Your task to perform on an android device: turn on the 24-hour format for clock Image 0: 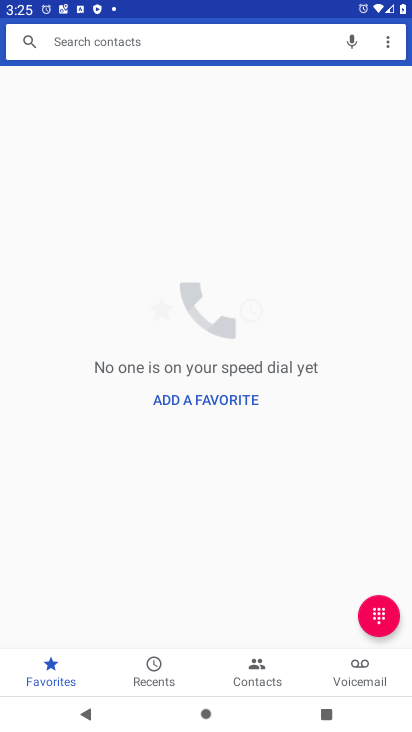
Step 0: press home button
Your task to perform on an android device: turn on the 24-hour format for clock Image 1: 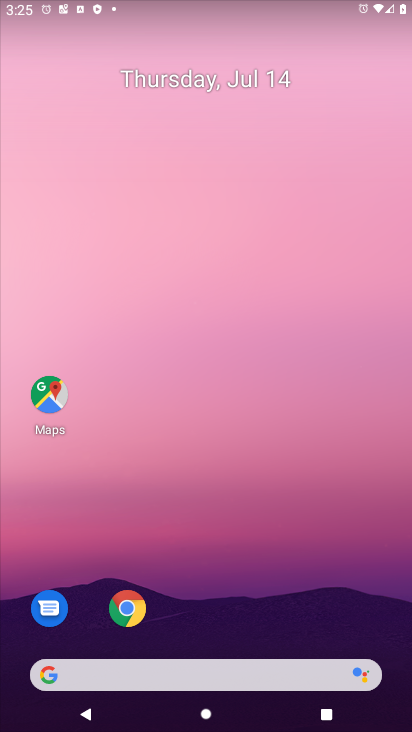
Step 1: click (365, 622)
Your task to perform on an android device: turn on the 24-hour format for clock Image 2: 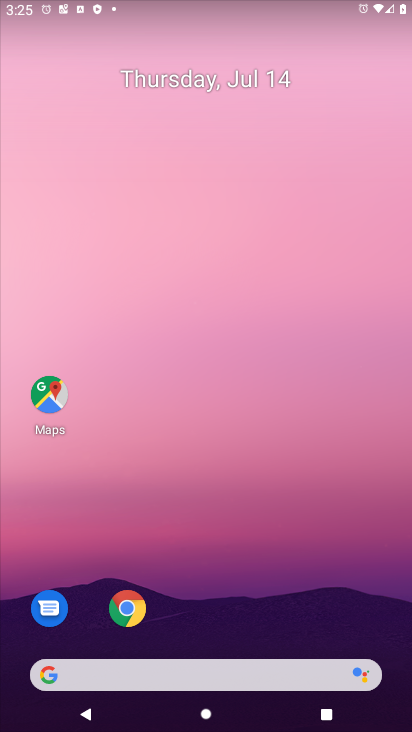
Step 2: drag from (365, 622) to (293, 102)
Your task to perform on an android device: turn on the 24-hour format for clock Image 3: 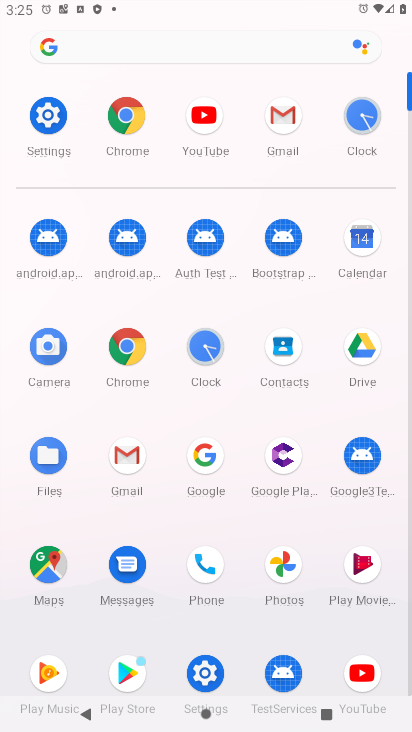
Step 3: click (204, 343)
Your task to perform on an android device: turn on the 24-hour format for clock Image 4: 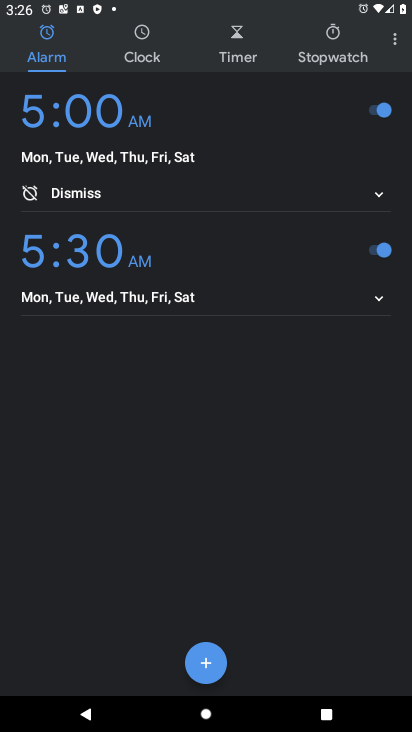
Step 4: click (393, 43)
Your task to perform on an android device: turn on the 24-hour format for clock Image 5: 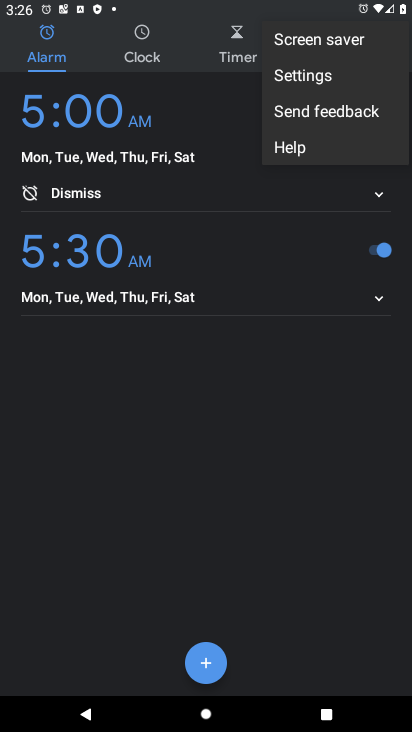
Step 5: click (314, 70)
Your task to perform on an android device: turn on the 24-hour format for clock Image 6: 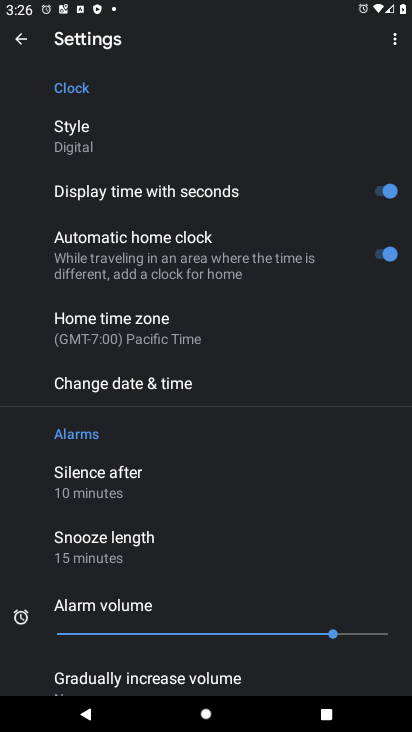
Step 6: click (125, 388)
Your task to perform on an android device: turn on the 24-hour format for clock Image 7: 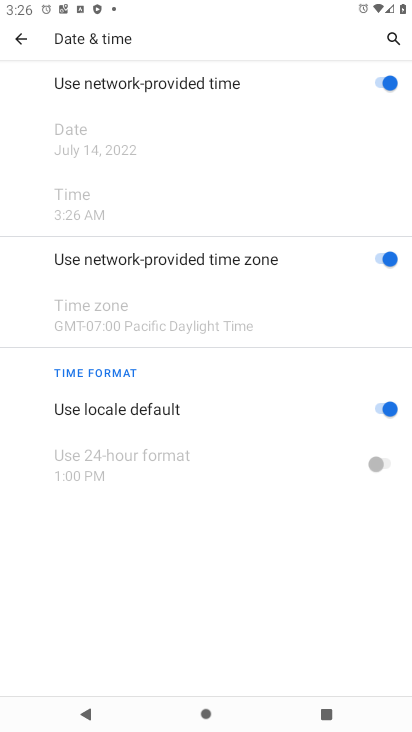
Step 7: click (376, 405)
Your task to perform on an android device: turn on the 24-hour format for clock Image 8: 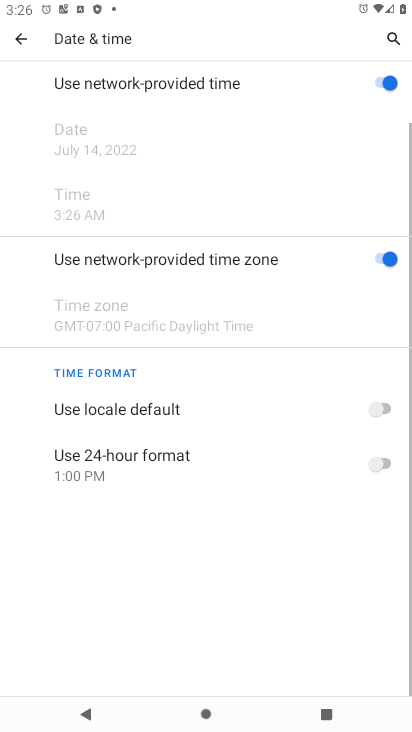
Step 8: click (386, 468)
Your task to perform on an android device: turn on the 24-hour format for clock Image 9: 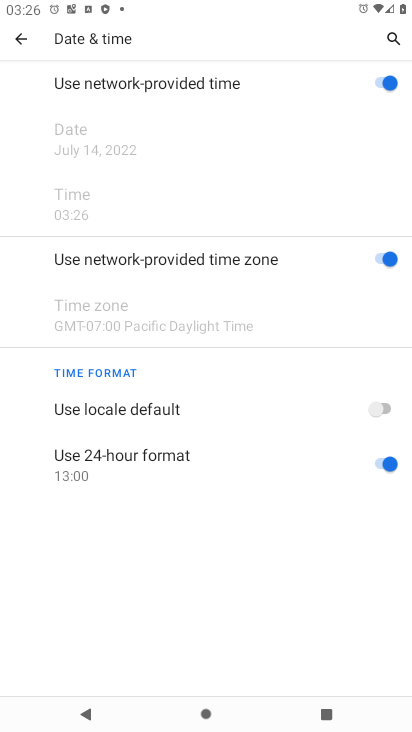
Step 9: task complete